Your task to perform on an android device: Go to Reddit.com Image 0: 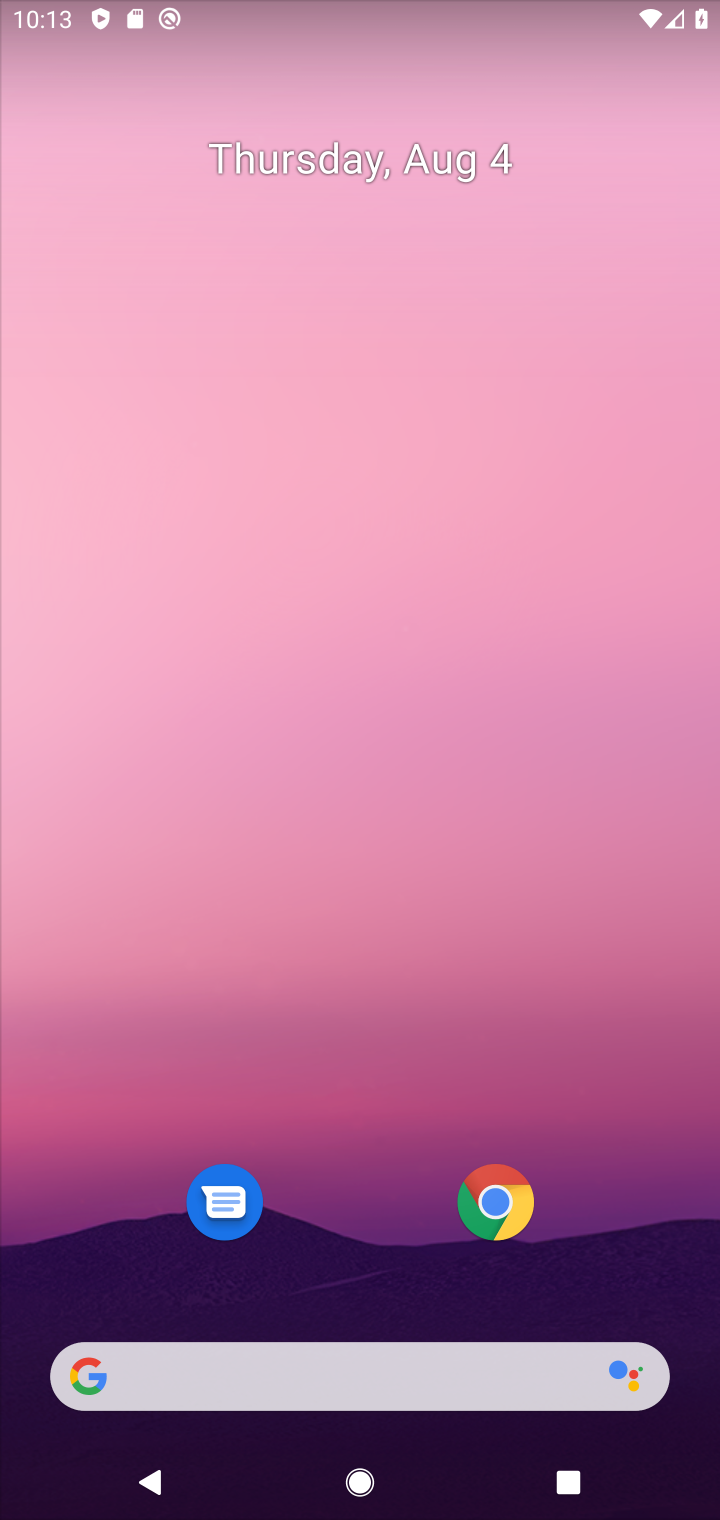
Step 0: click (515, 1177)
Your task to perform on an android device: Go to Reddit.com Image 1: 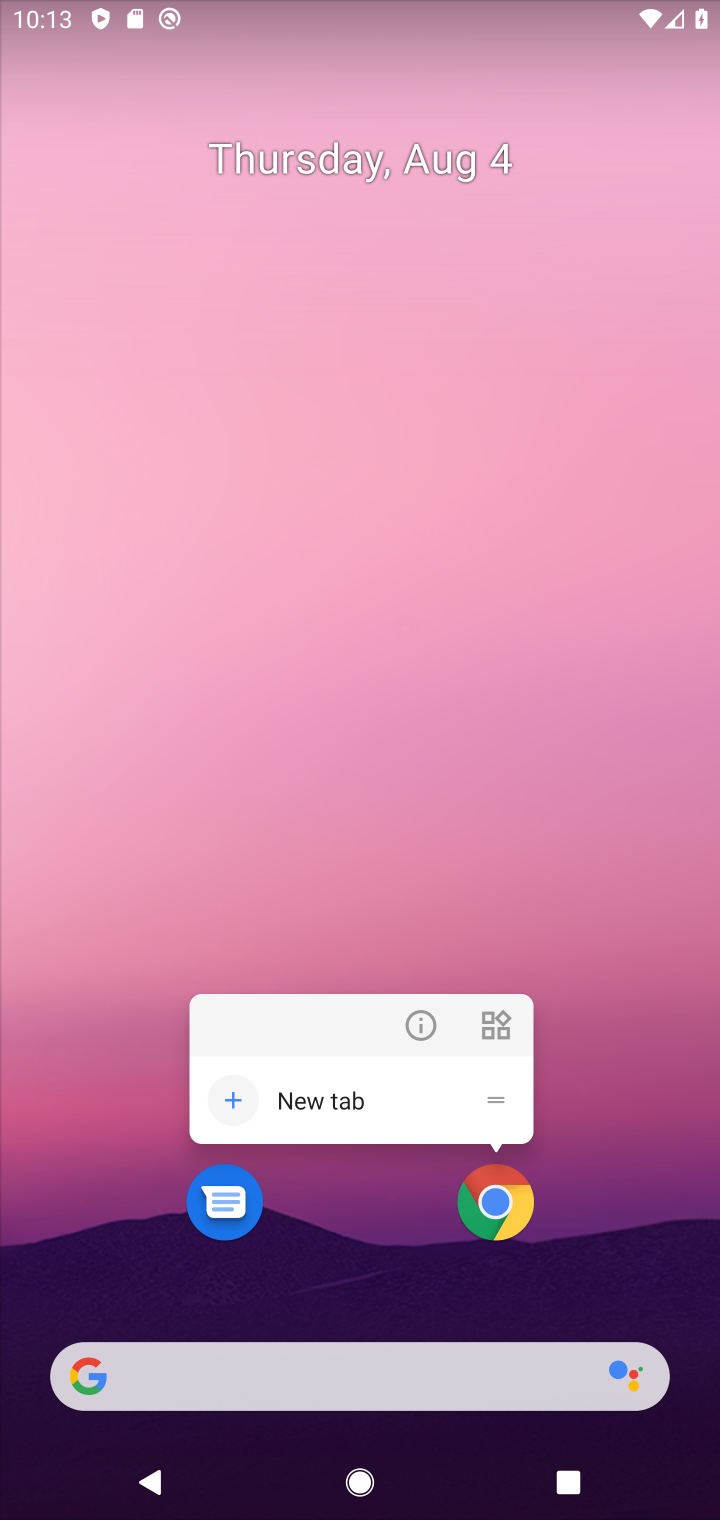
Step 1: click (486, 1209)
Your task to perform on an android device: Go to Reddit.com Image 2: 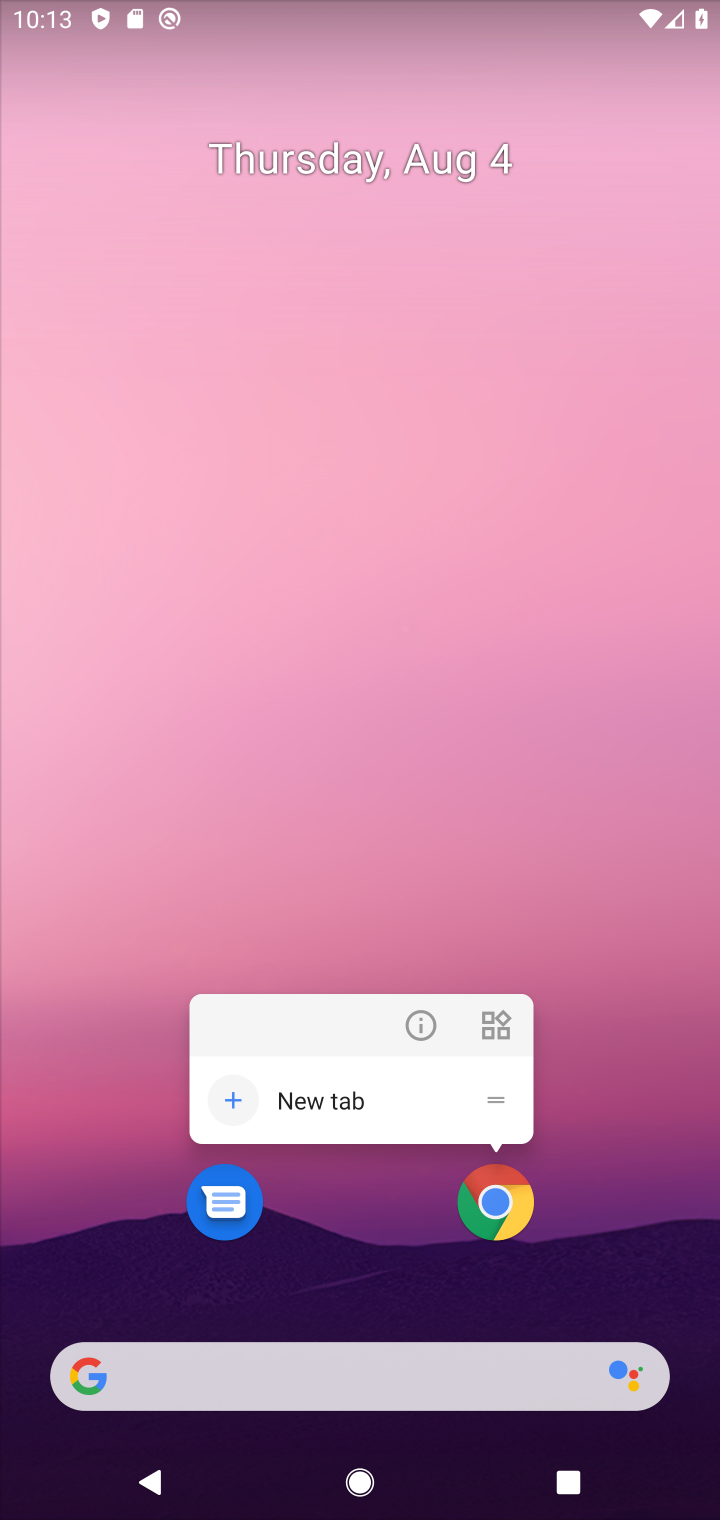
Step 2: click (513, 1209)
Your task to perform on an android device: Go to Reddit.com Image 3: 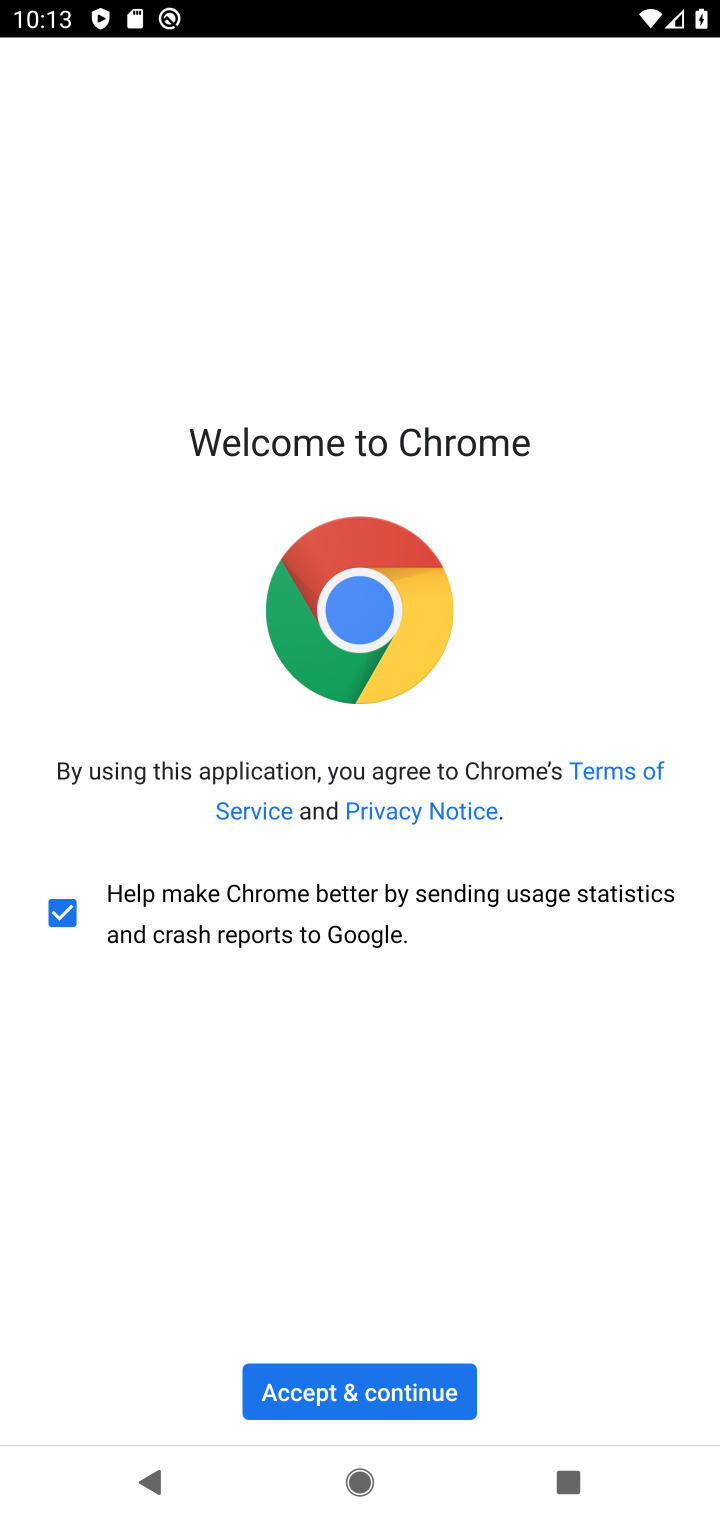
Step 3: click (296, 1428)
Your task to perform on an android device: Go to Reddit.com Image 4: 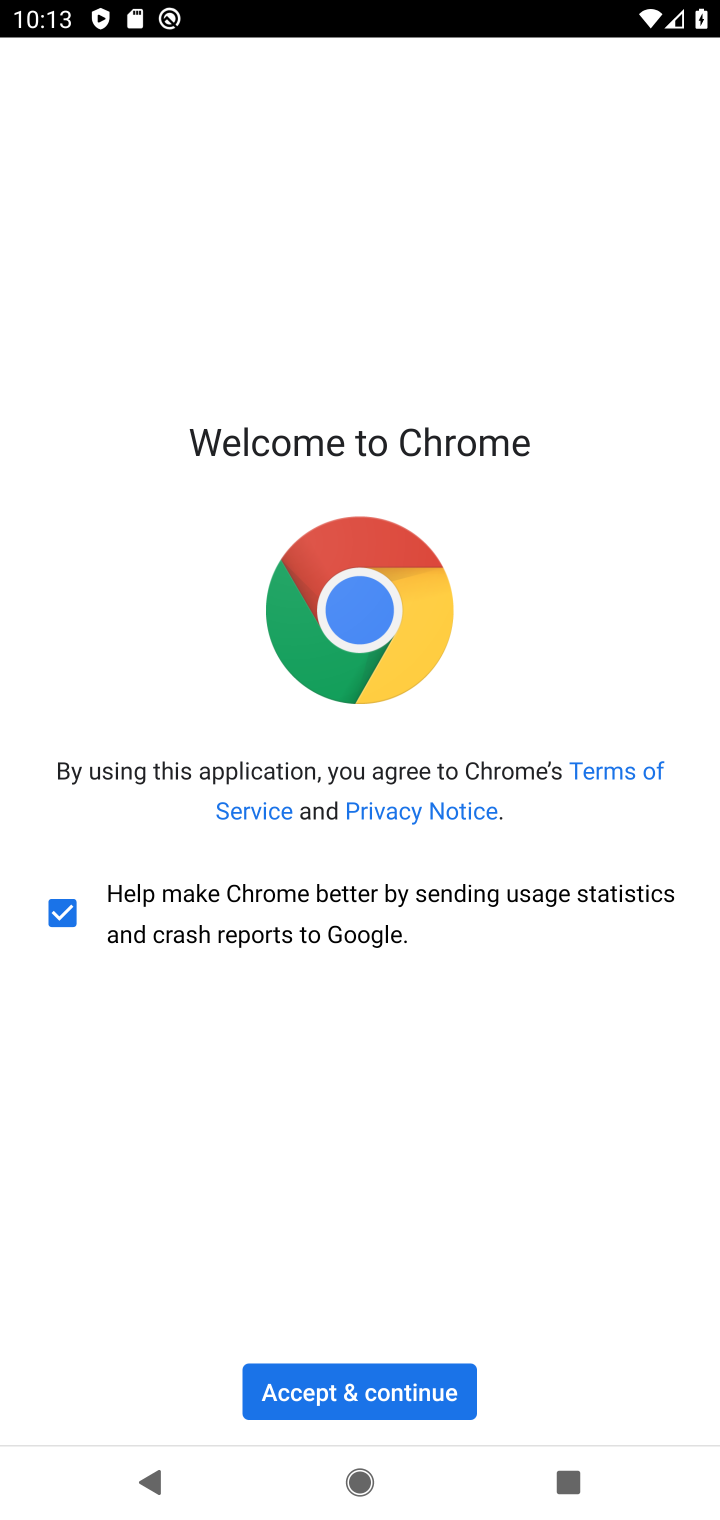
Step 4: click (331, 1388)
Your task to perform on an android device: Go to Reddit.com Image 5: 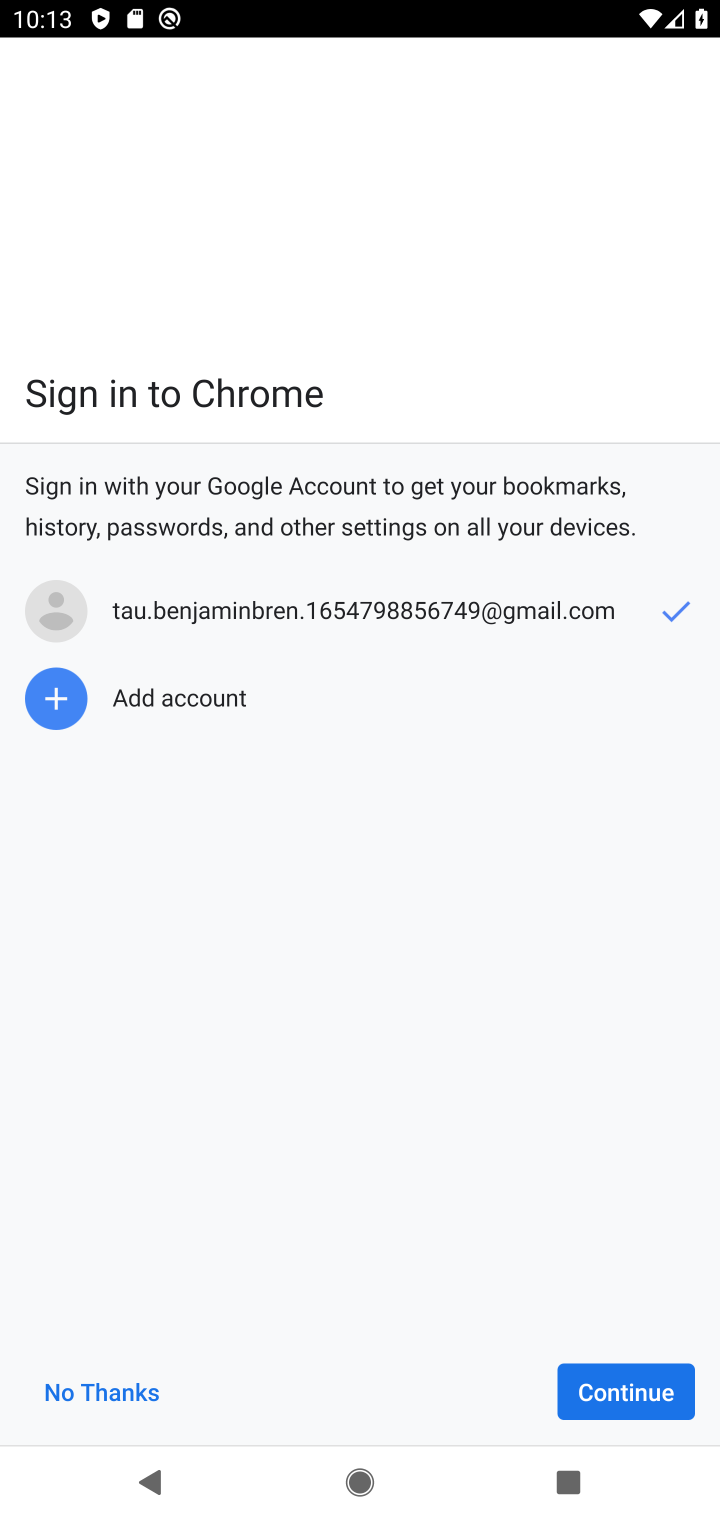
Step 5: click (648, 1364)
Your task to perform on an android device: Go to Reddit.com Image 6: 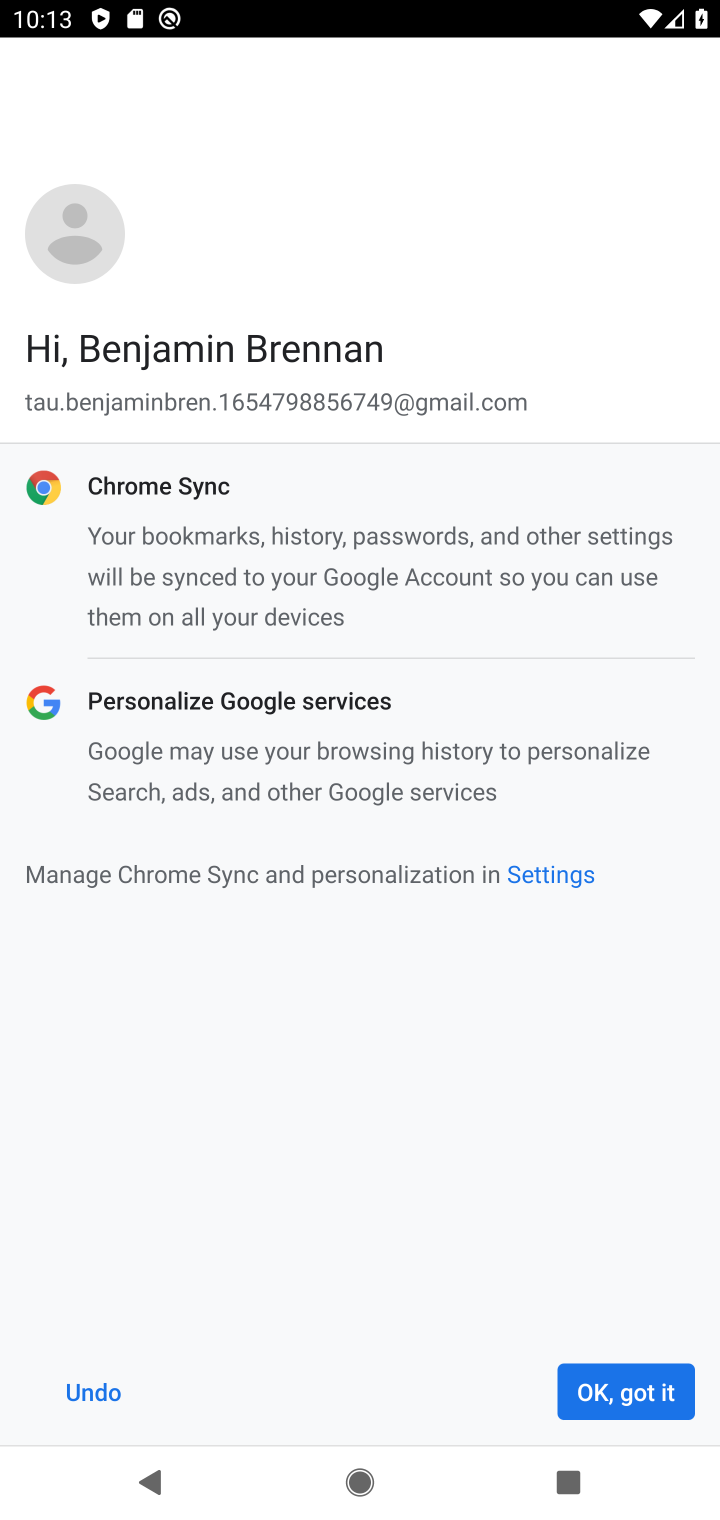
Step 6: click (630, 1391)
Your task to perform on an android device: Go to Reddit.com Image 7: 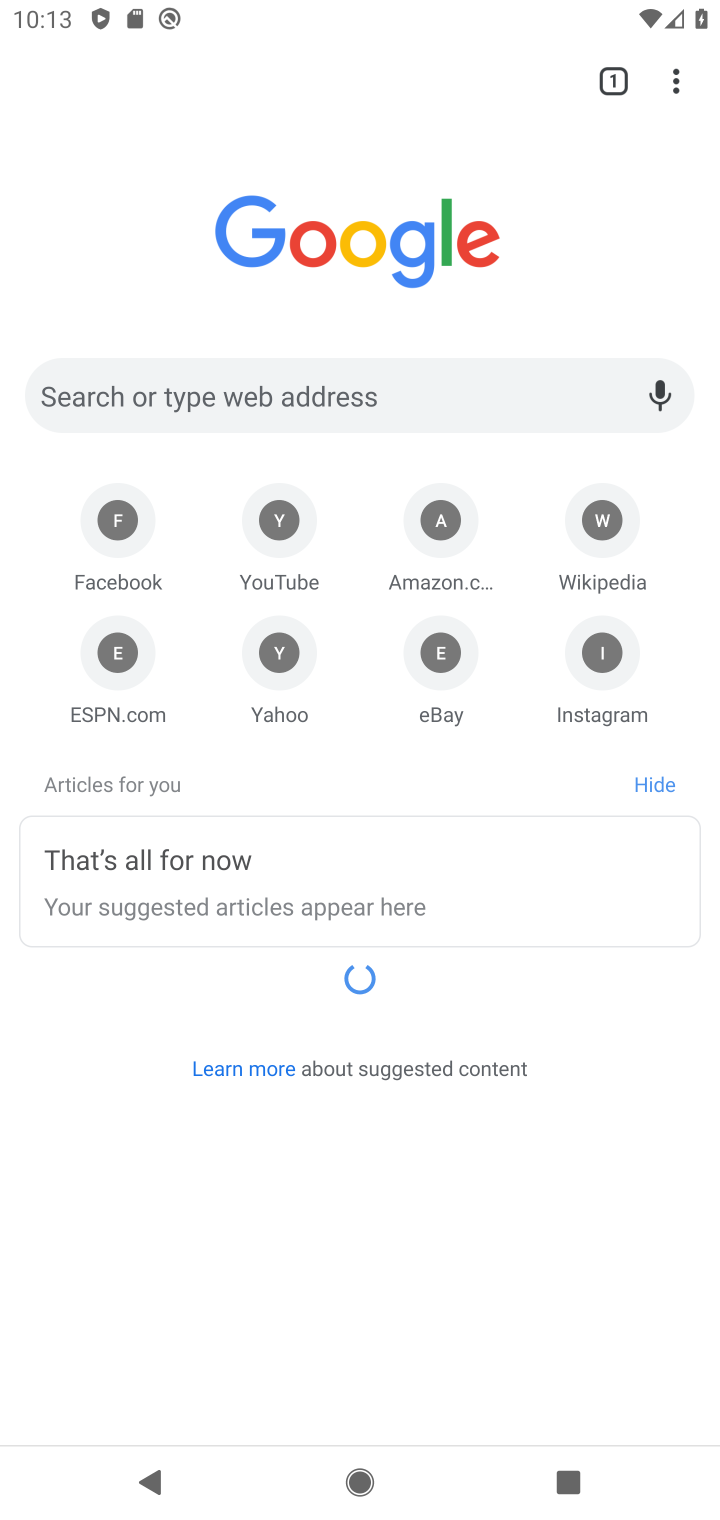
Step 7: click (318, 409)
Your task to perform on an android device: Go to Reddit.com Image 8: 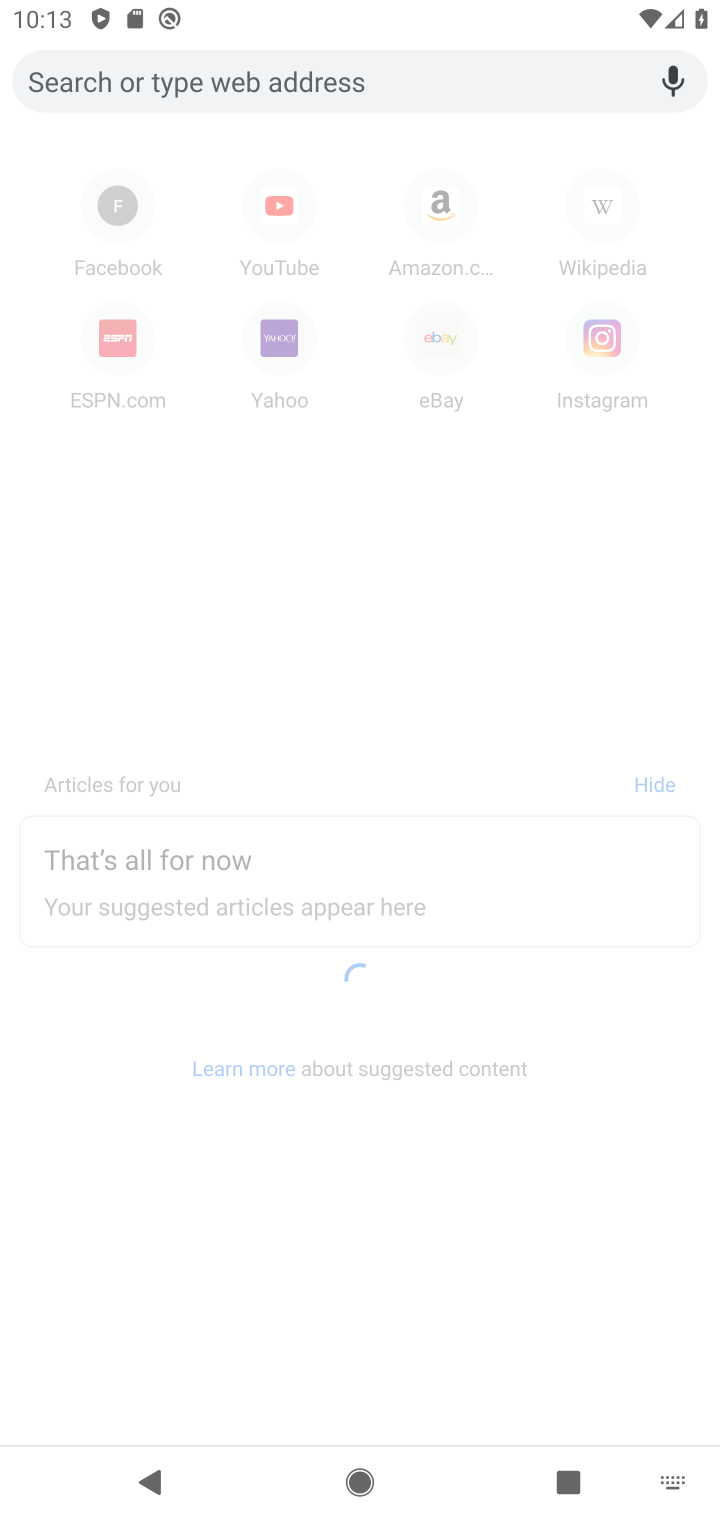
Step 8: type "reddit.com"
Your task to perform on an android device: Go to Reddit.com Image 9: 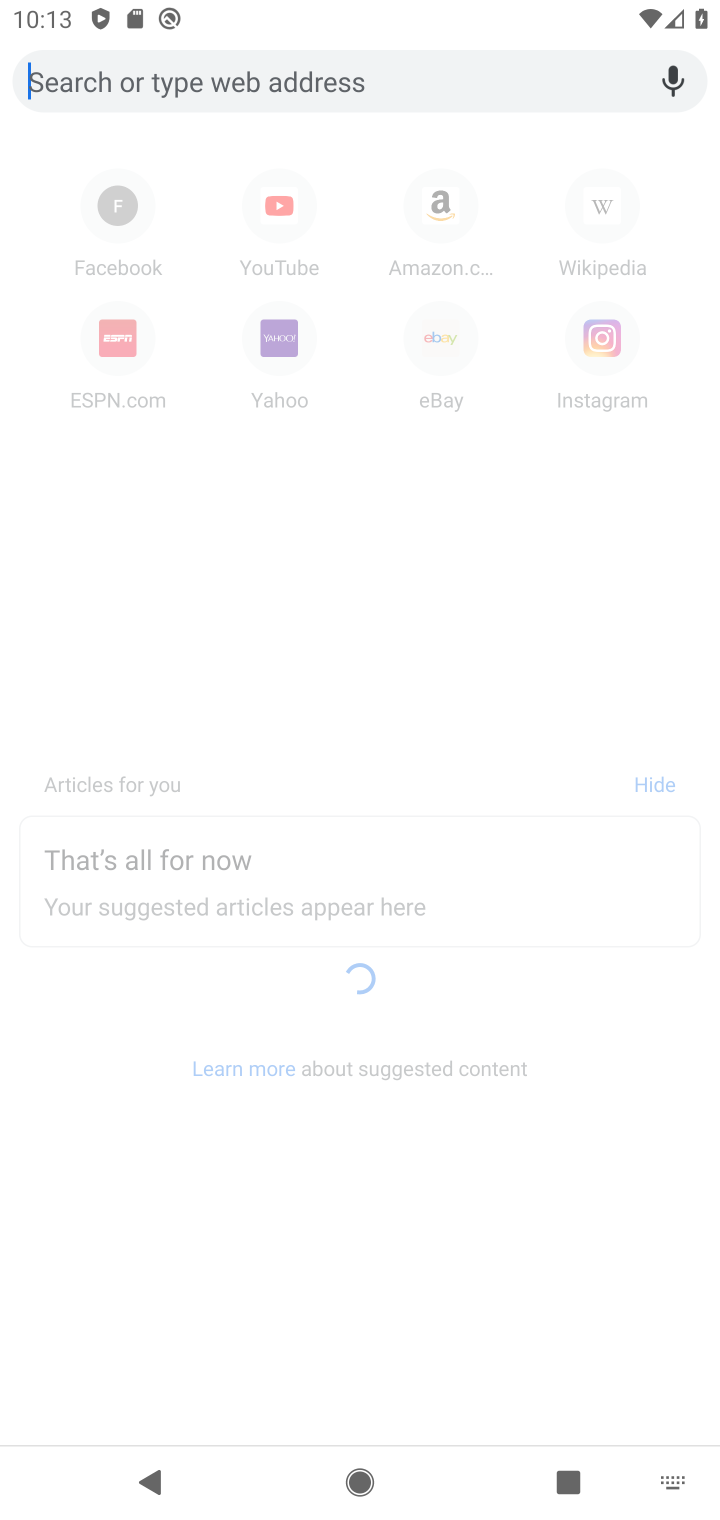
Step 9: click (373, 98)
Your task to perform on an android device: Go to Reddit.com Image 10: 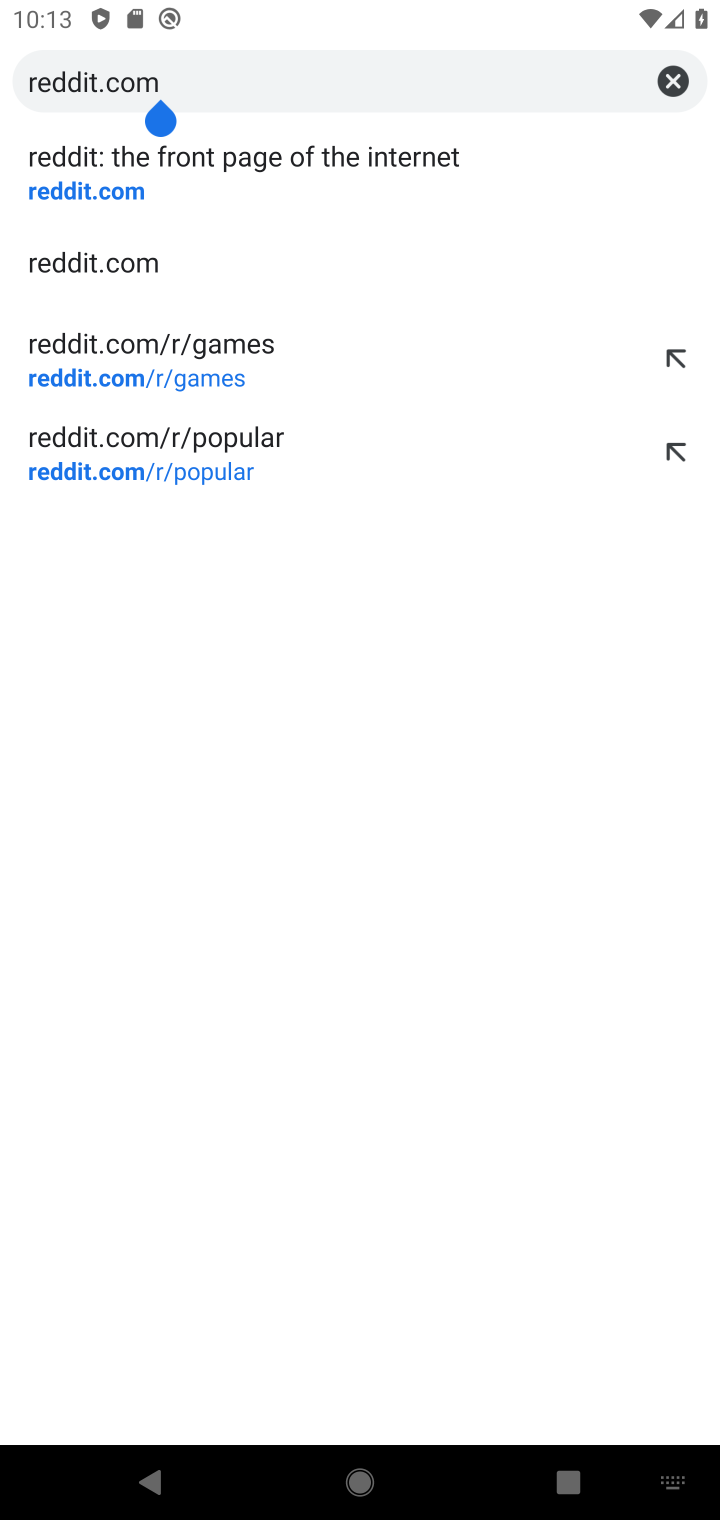
Step 10: click (205, 167)
Your task to perform on an android device: Go to Reddit.com Image 11: 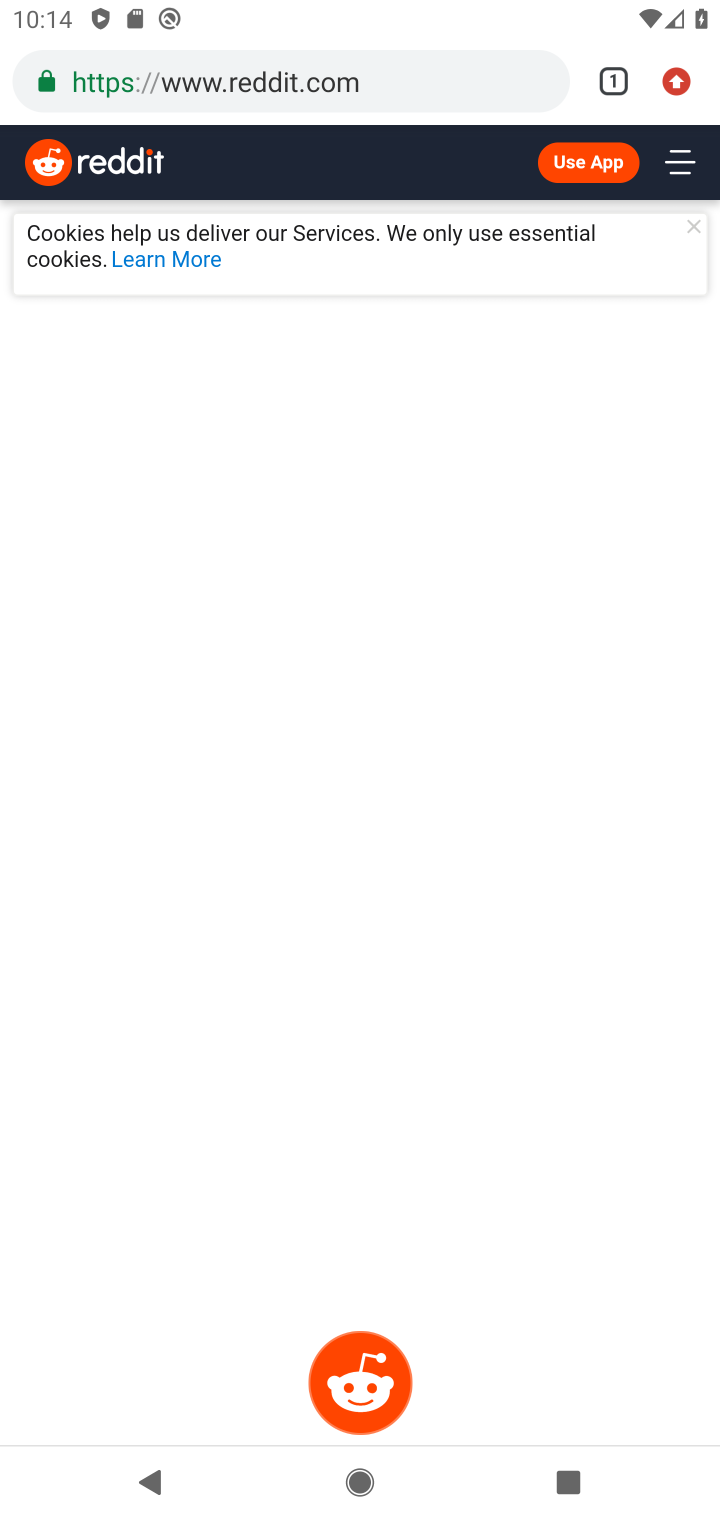
Step 11: task complete